Your task to perform on an android device: Go to Wikipedia Image 0: 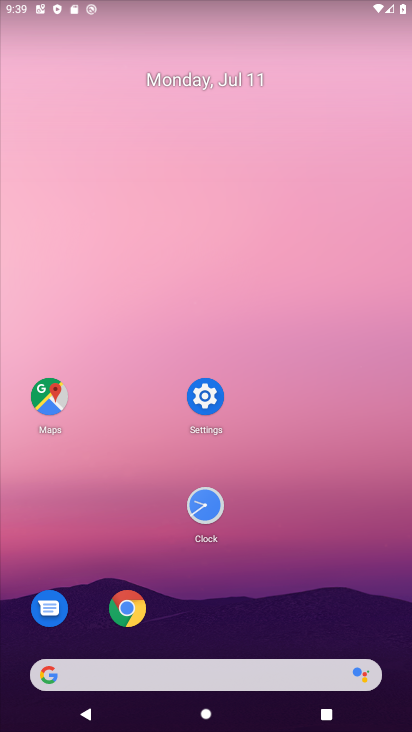
Step 0: click (125, 603)
Your task to perform on an android device: Go to Wikipedia Image 1: 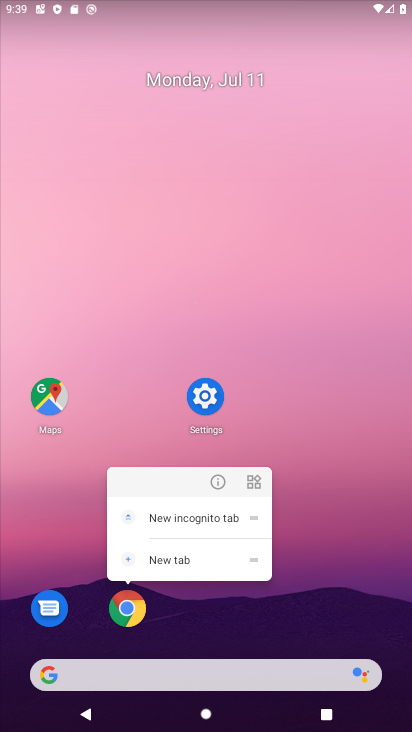
Step 1: click (125, 603)
Your task to perform on an android device: Go to Wikipedia Image 2: 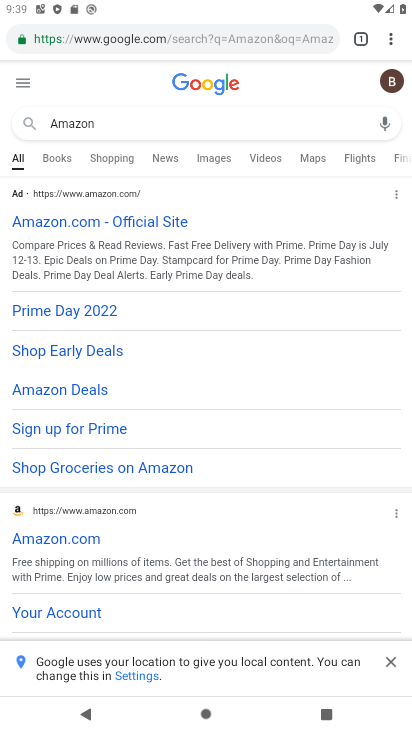
Step 2: click (299, 40)
Your task to perform on an android device: Go to Wikipedia Image 3: 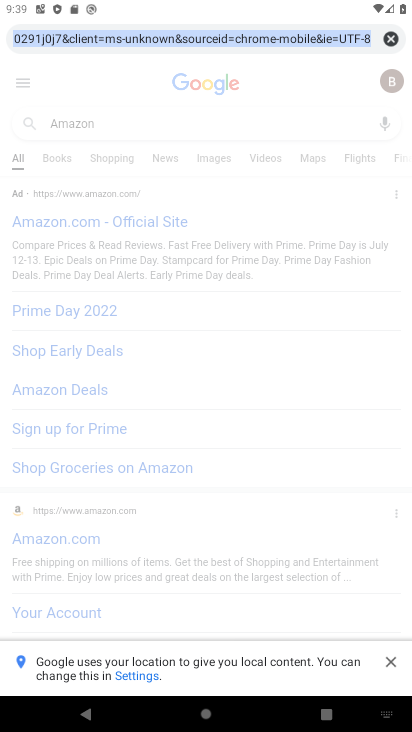
Step 3: click (389, 40)
Your task to perform on an android device: Go to Wikipedia Image 4: 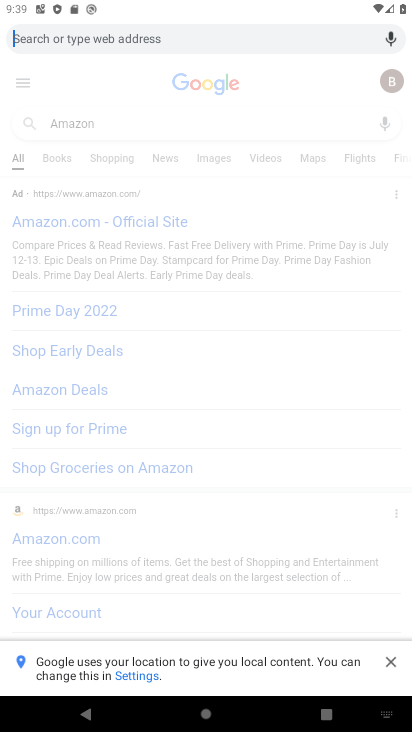
Step 4: type "Wikipedia"
Your task to perform on an android device: Go to Wikipedia Image 5: 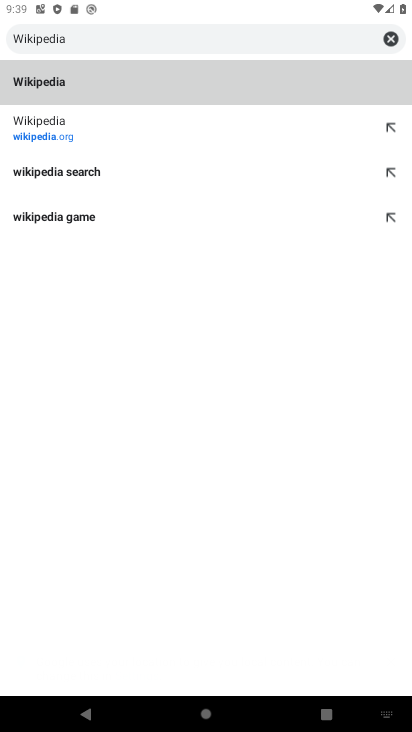
Step 5: click (63, 75)
Your task to perform on an android device: Go to Wikipedia Image 6: 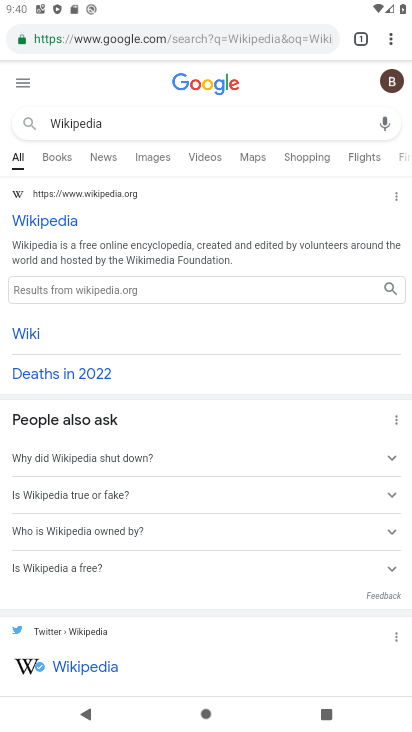
Step 6: click (40, 214)
Your task to perform on an android device: Go to Wikipedia Image 7: 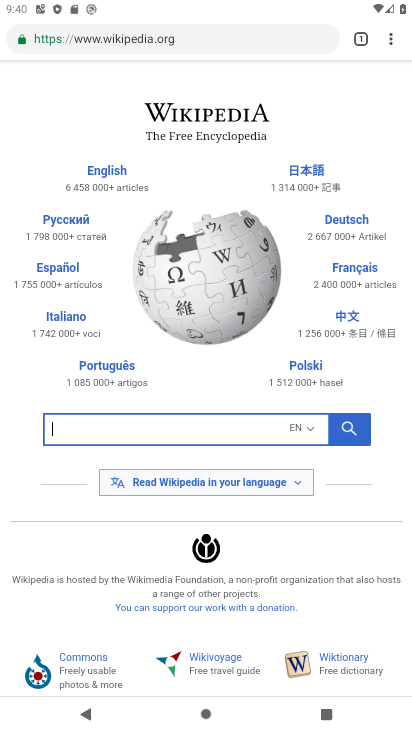
Step 7: task complete